Your task to perform on an android device: Show me productivity apps on the Play Store Image 0: 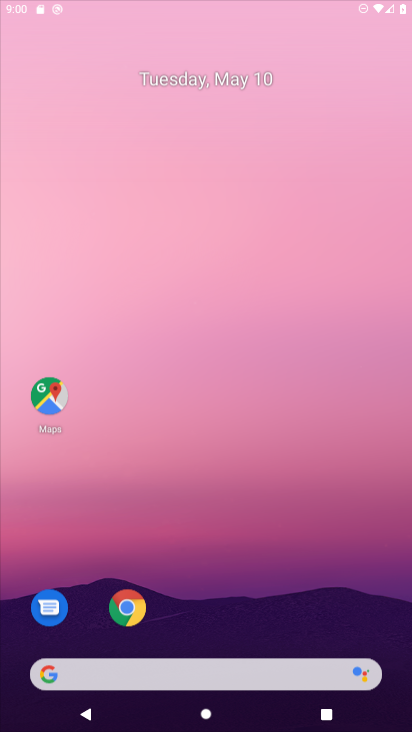
Step 0: drag from (329, 619) to (309, 125)
Your task to perform on an android device: Show me productivity apps on the Play Store Image 1: 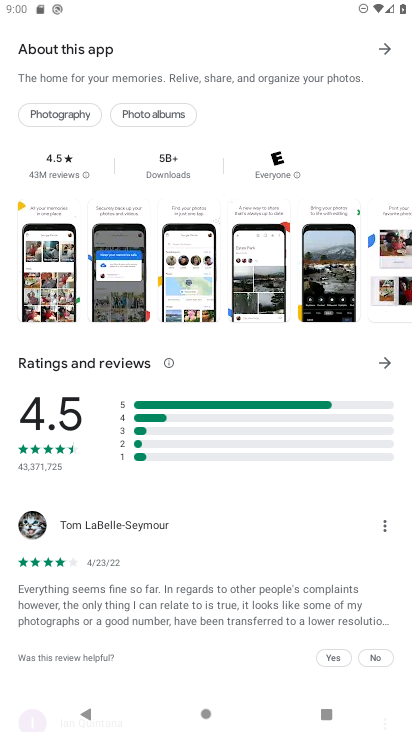
Step 1: press home button
Your task to perform on an android device: Show me productivity apps on the Play Store Image 2: 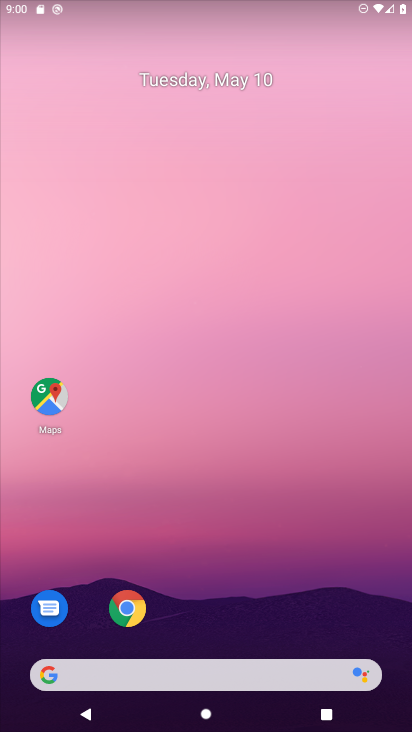
Step 2: drag from (303, 626) to (225, 26)
Your task to perform on an android device: Show me productivity apps on the Play Store Image 3: 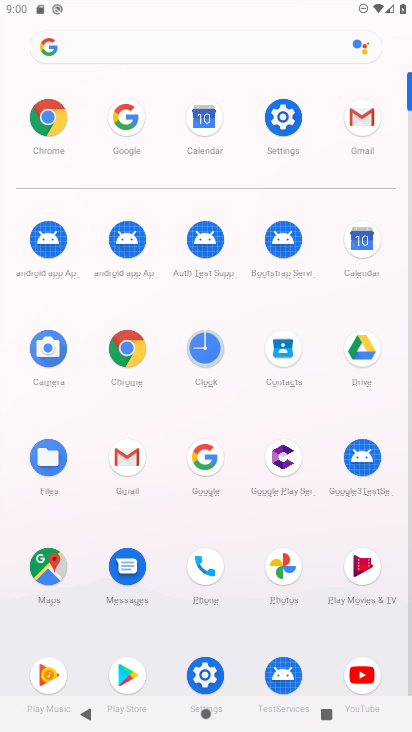
Step 3: click (133, 673)
Your task to perform on an android device: Show me productivity apps on the Play Store Image 4: 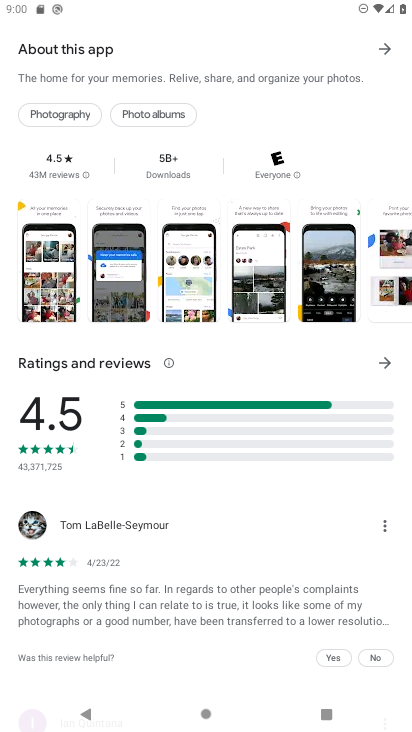
Step 4: task complete